Your task to perform on an android device: turn on the 24-hour format for clock Image 0: 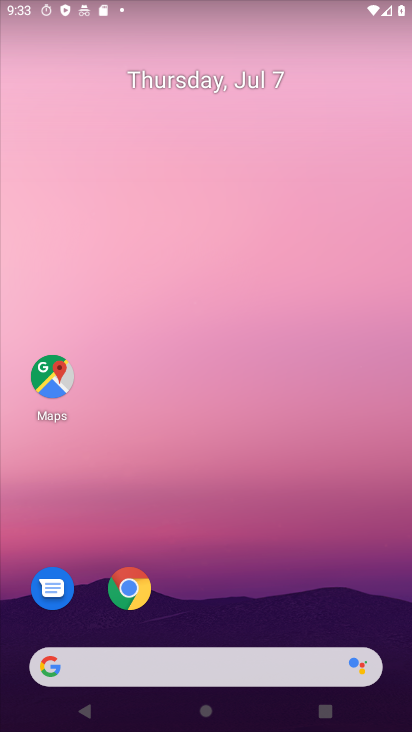
Step 0: drag from (264, 711) to (122, 30)
Your task to perform on an android device: turn on the 24-hour format for clock Image 1: 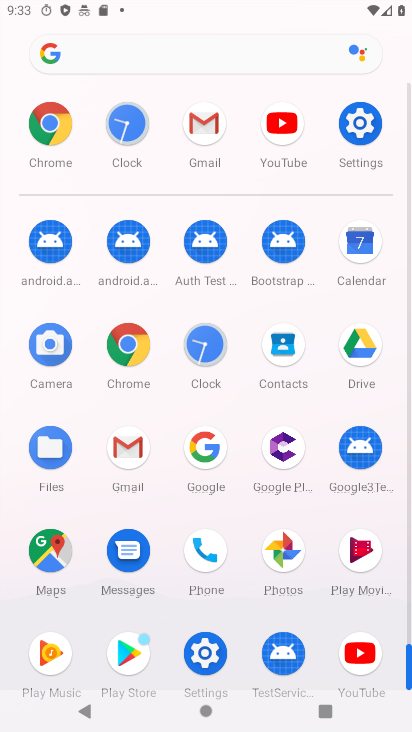
Step 1: click (194, 341)
Your task to perform on an android device: turn on the 24-hour format for clock Image 2: 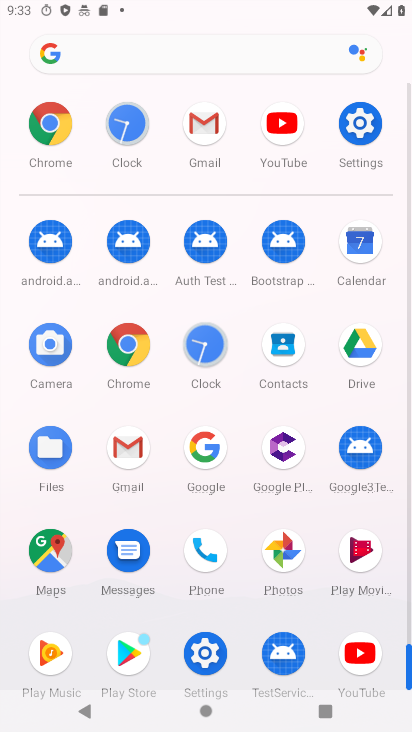
Step 2: click (194, 341)
Your task to perform on an android device: turn on the 24-hour format for clock Image 3: 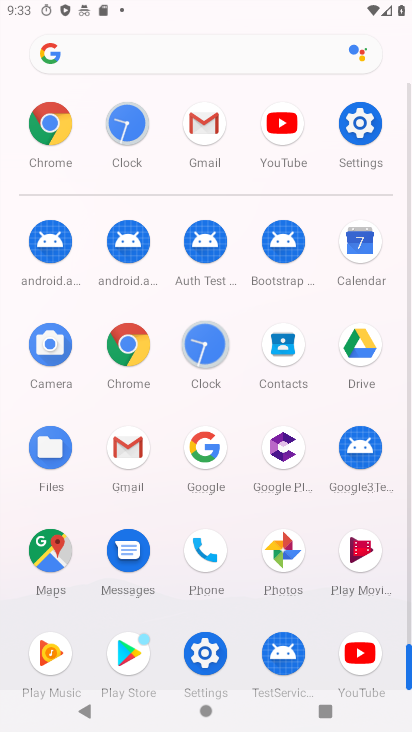
Step 3: click (194, 341)
Your task to perform on an android device: turn on the 24-hour format for clock Image 4: 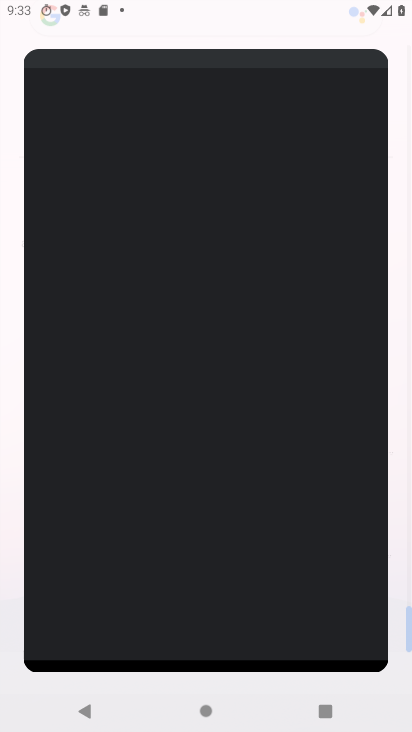
Step 4: click (194, 341)
Your task to perform on an android device: turn on the 24-hour format for clock Image 5: 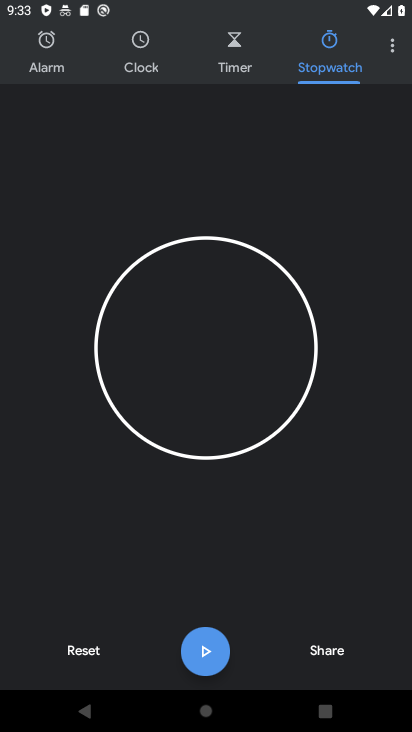
Step 5: click (138, 55)
Your task to perform on an android device: turn on the 24-hour format for clock Image 6: 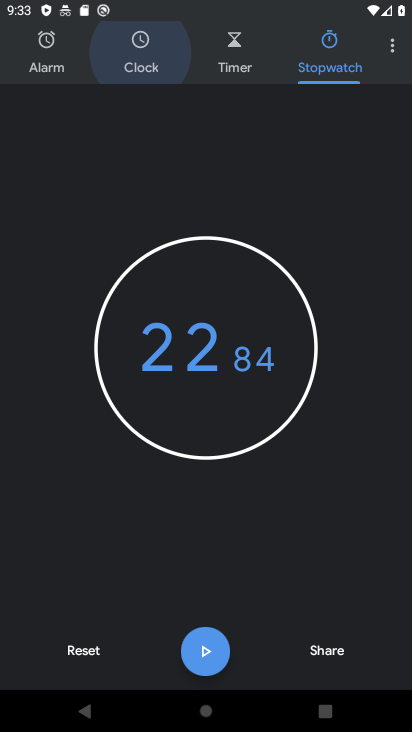
Step 6: click (139, 55)
Your task to perform on an android device: turn on the 24-hour format for clock Image 7: 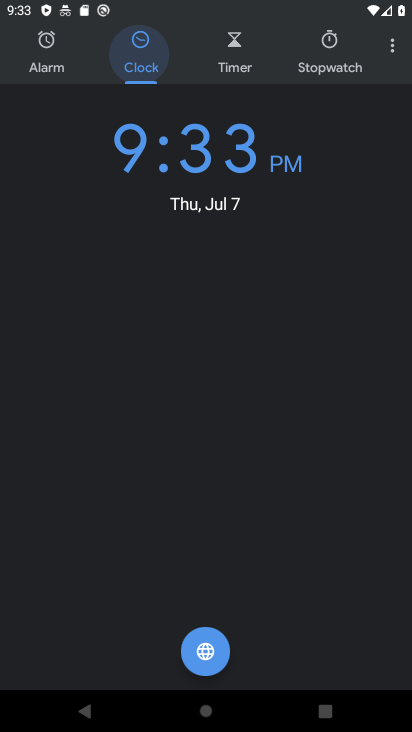
Step 7: click (140, 55)
Your task to perform on an android device: turn on the 24-hour format for clock Image 8: 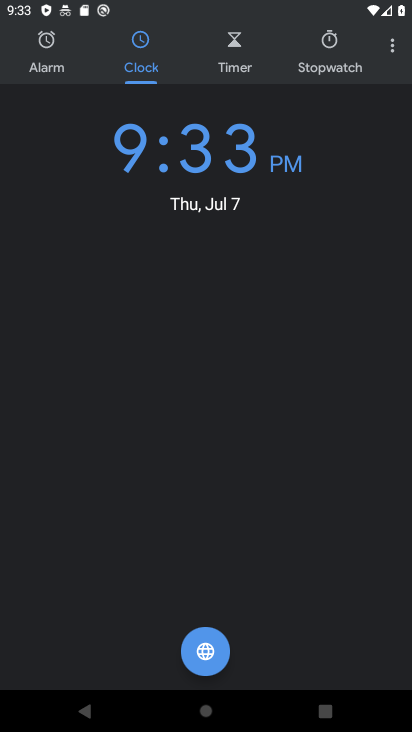
Step 8: click (391, 42)
Your task to perform on an android device: turn on the 24-hour format for clock Image 9: 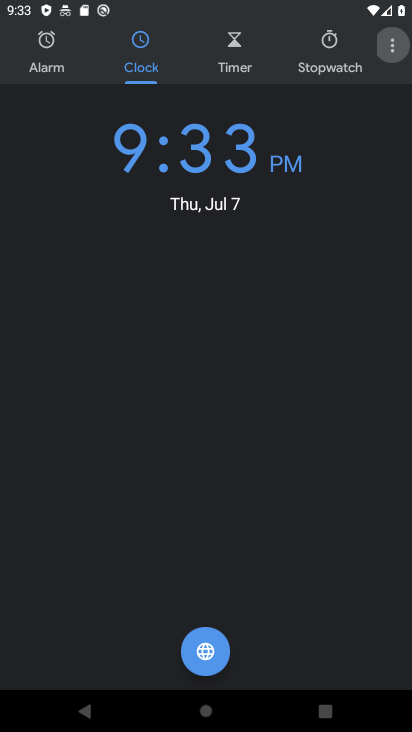
Step 9: click (391, 44)
Your task to perform on an android device: turn on the 24-hour format for clock Image 10: 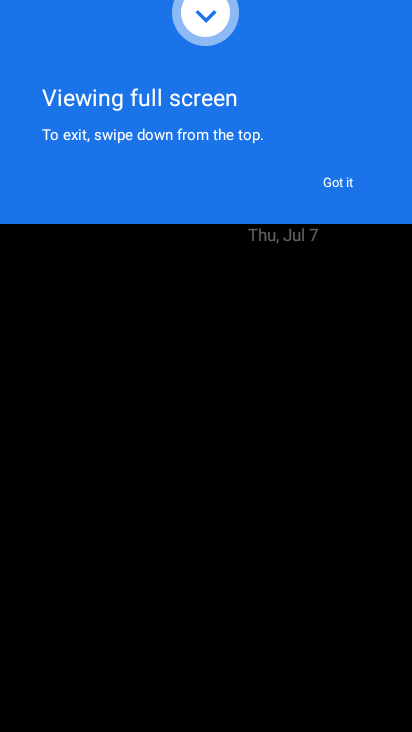
Step 10: click (338, 185)
Your task to perform on an android device: turn on the 24-hour format for clock Image 11: 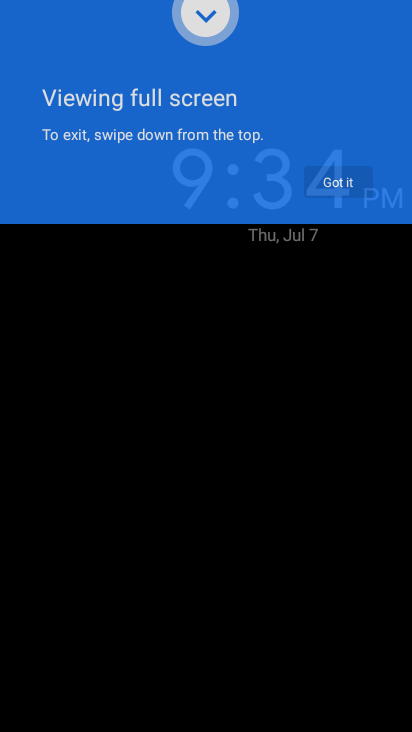
Step 11: click (338, 185)
Your task to perform on an android device: turn on the 24-hour format for clock Image 12: 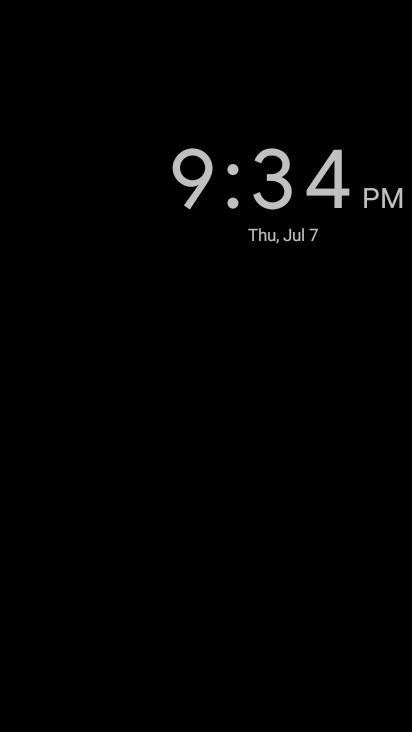
Step 12: click (339, 185)
Your task to perform on an android device: turn on the 24-hour format for clock Image 13: 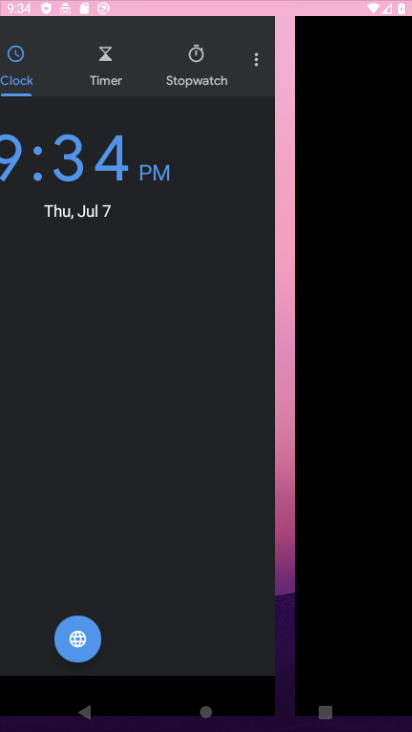
Step 13: click (339, 185)
Your task to perform on an android device: turn on the 24-hour format for clock Image 14: 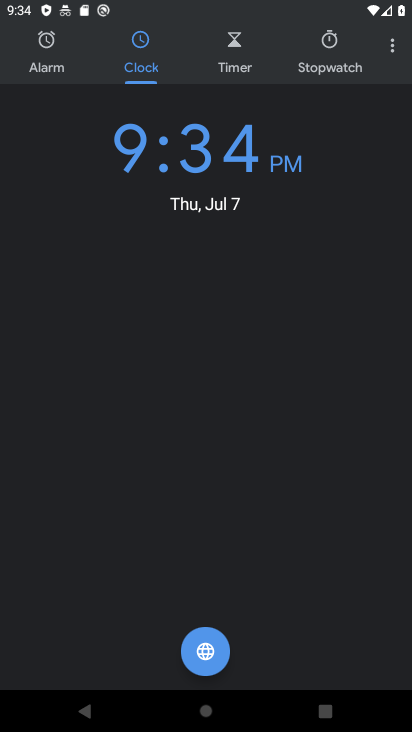
Step 14: click (388, 42)
Your task to perform on an android device: turn on the 24-hour format for clock Image 15: 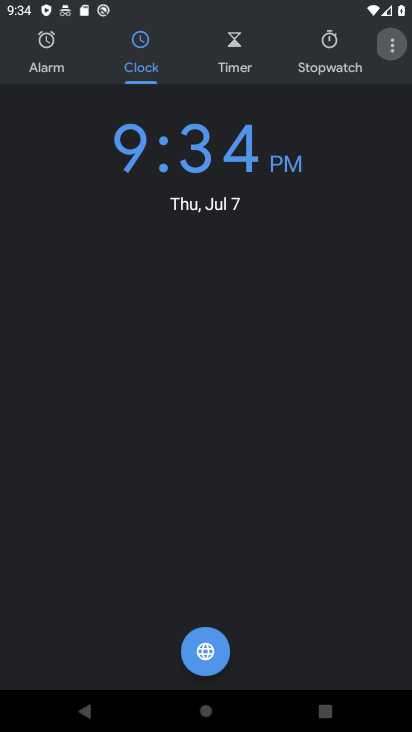
Step 15: click (389, 44)
Your task to perform on an android device: turn on the 24-hour format for clock Image 16: 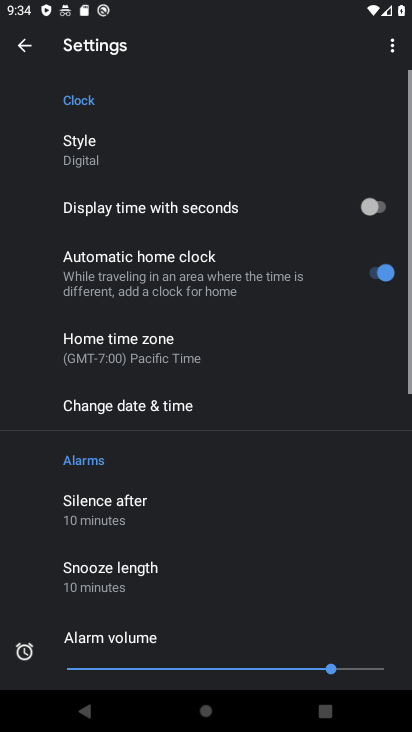
Step 16: drag from (190, 573) to (153, 172)
Your task to perform on an android device: turn on the 24-hour format for clock Image 17: 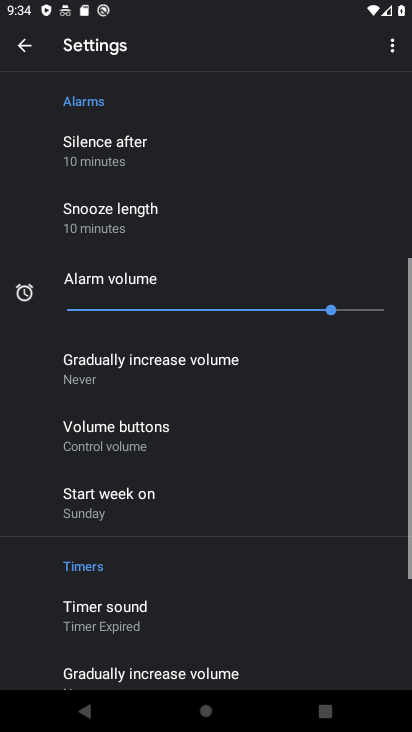
Step 17: drag from (171, 559) to (167, 402)
Your task to perform on an android device: turn on the 24-hour format for clock Image 18: 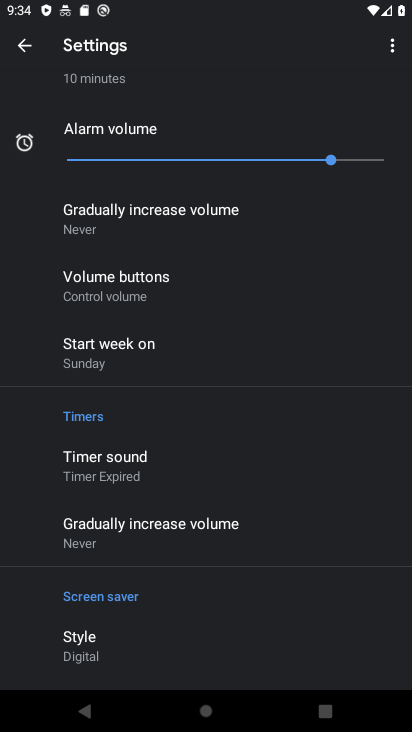
Step 18: drag from (233, 642) to (148, 237)
Your task to perform on an android device: turn on the 24-hour format for clock Image 19: 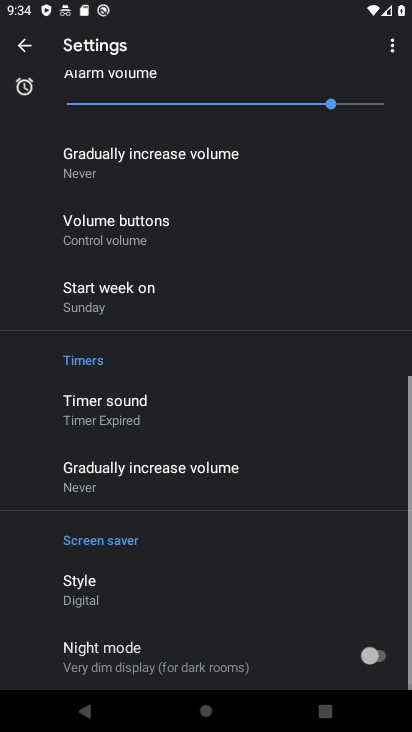
Step 19: drag from (178, 612) to (123, 255)
Your task to perform on an android device: turn on the 24-hour format for clock Image 20: 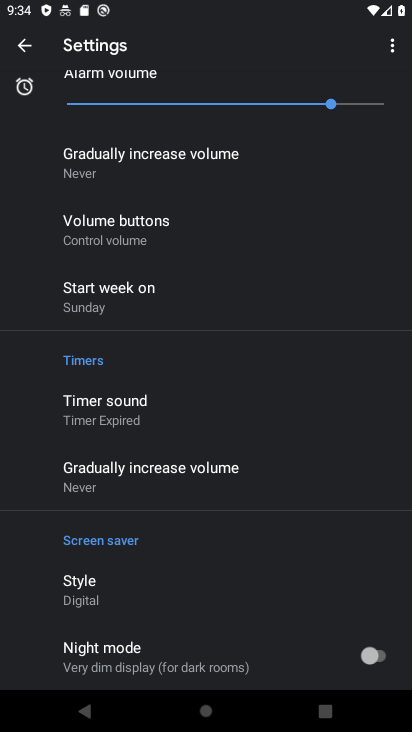
Step 20: drag from (119, 202) to (110, 534)
Your task to perform on an android device: turn on the 24-hour format for clock Image 21: 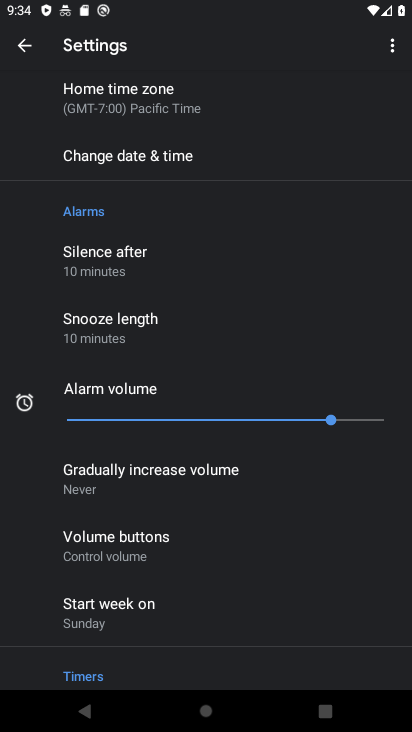
Step 21: drag from (185, 628) to (202, 351)
Your task to perform on an android device: turn on the 24-hour format for clock Image 22: 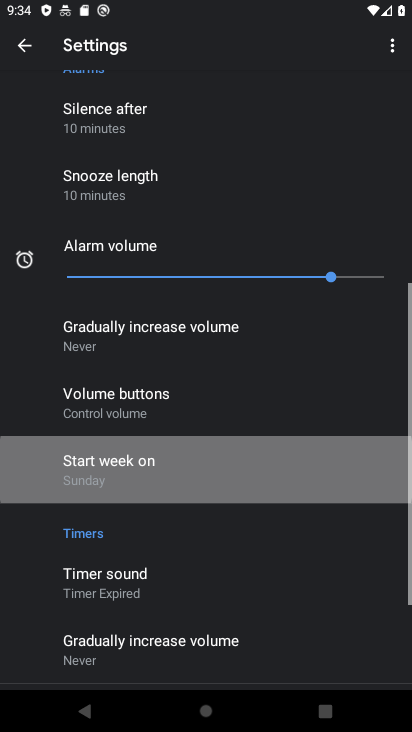
Step 22: drag from (201, 603) to (155, 187)
Your task to perform on an android device: turn on the 24-hour format for clock Image 23: 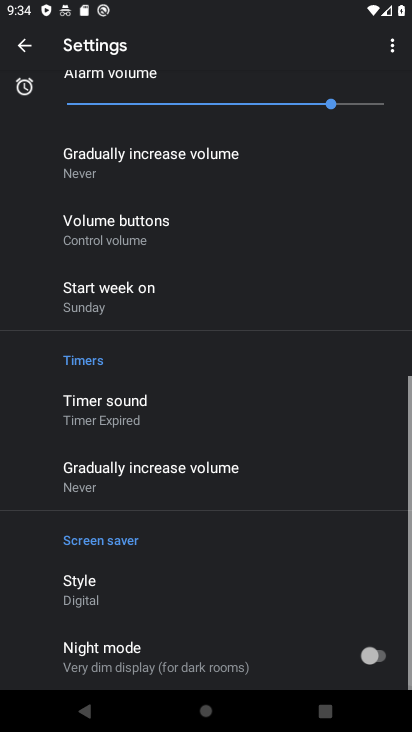
Step 23: drag from (269, 549) to (269, 187)
Your task to perform on an android device: turn on the 24-hour format for clock Image 24: 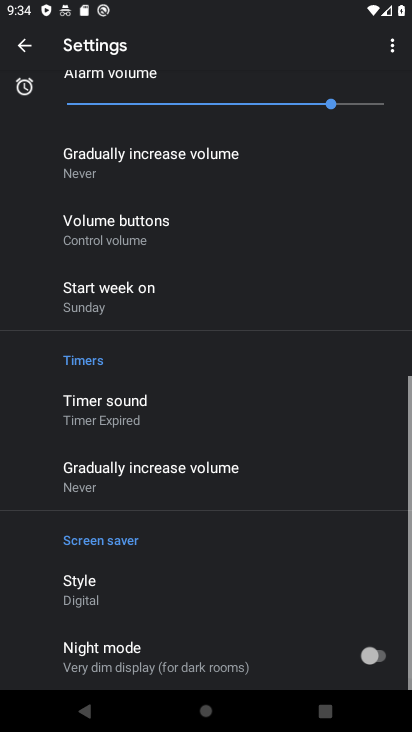
Step 24: drag from (213, 586) to (137, 337)
Your task to perform on an android device: turn on the 24-hour format for clock Image 25: 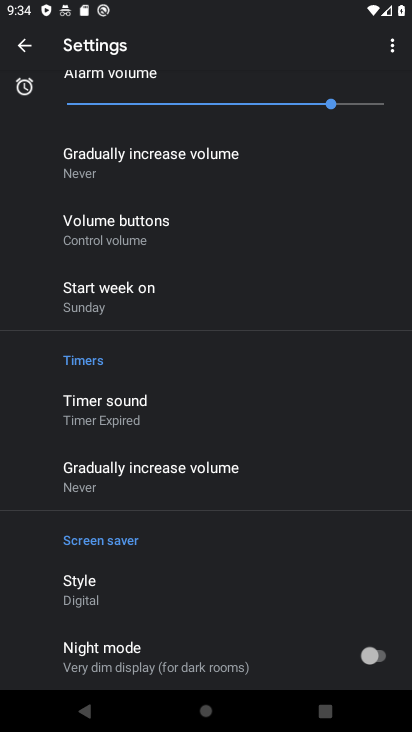
Step 25: click (34, 177)
Your task to perform on an android device: turn on the 24-hour format for clock Image 26: 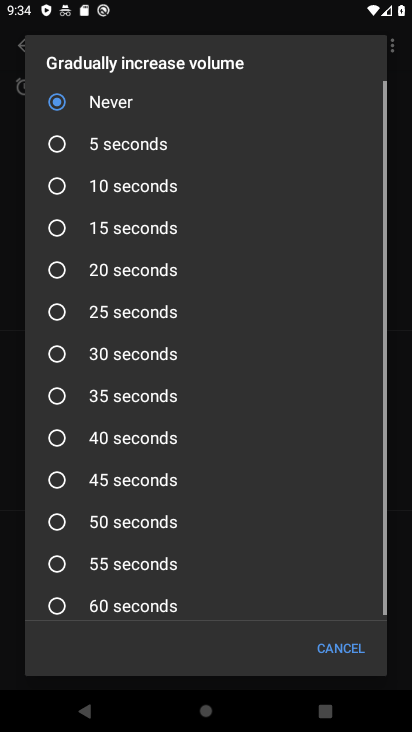
Step 26: drag from (169, 259) to (209, 577)
Your task to perform on an android device: turn on the 24-hour format for clock Image 27: 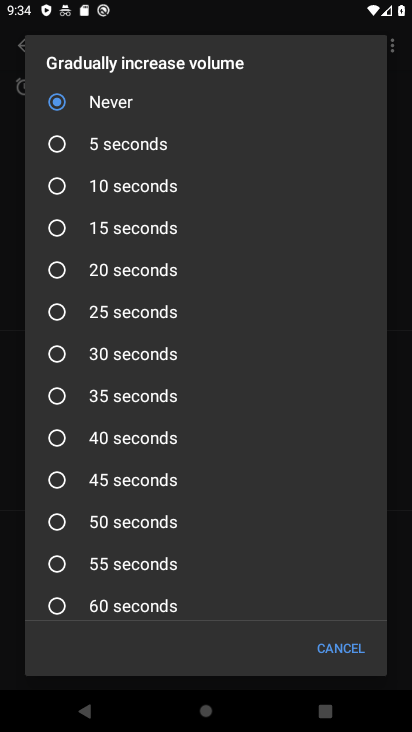
Step 27: click (331, 644)
Your task to perform on an android device: turn on the 24-hour format for clock Image 28: 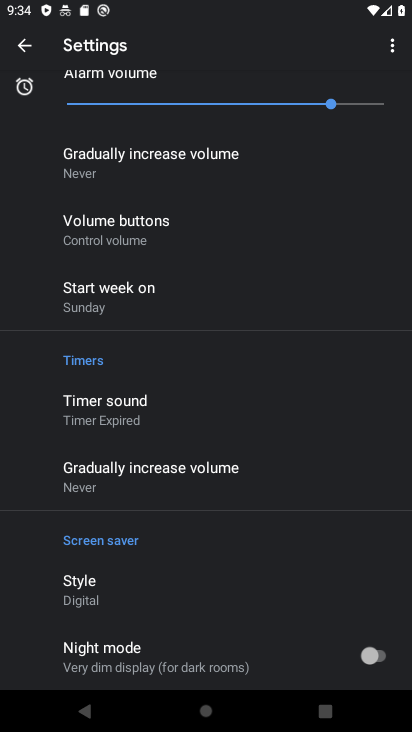
Step 28: drag from (150, 332) to (161, 618)
Your task to perform on an android device: turn on the 24-hour format for clock Image 29: 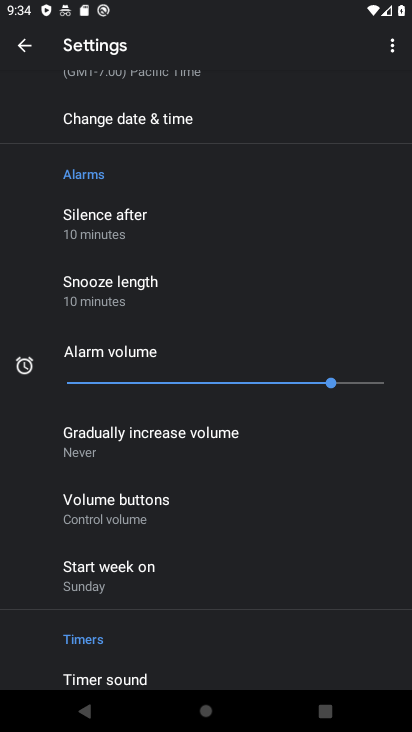
Step 29: click (130, 109)
Your task to perform on an android device: turn on the 24-hour format for clock Image 30: 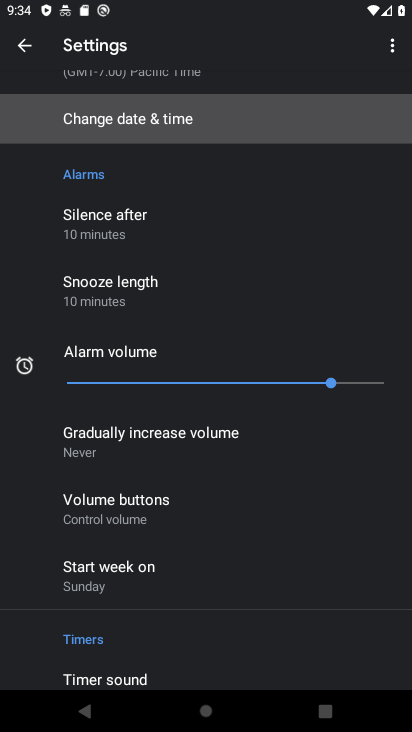
Step 30: click (130, 109)
Your task to perform on an android device: turn on the 24-hour format for clock Image 31: 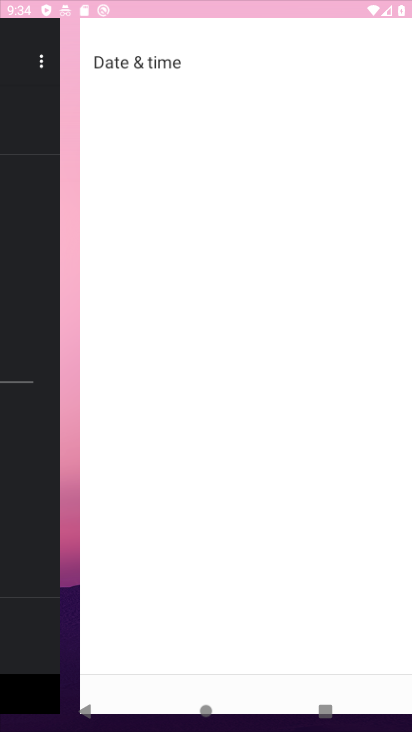
Step 31: click (130, 109)
Your task to perform on an android device: turn on the 24-hour format for clock Image 32: 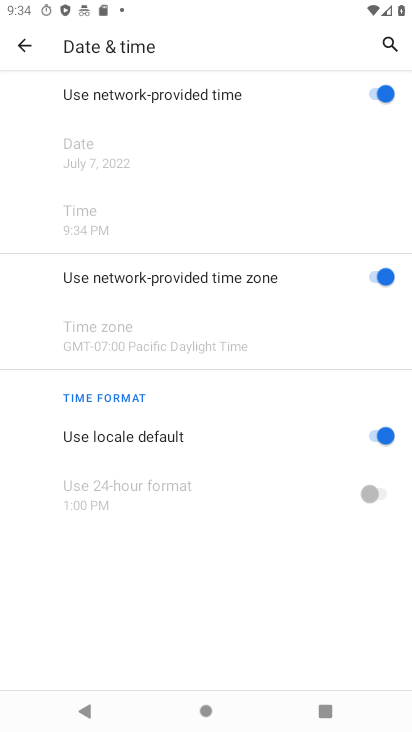
Step 32: click (381, 431)
Your task to perform on an android device: turn on the 24-hour format for clock Image 33: 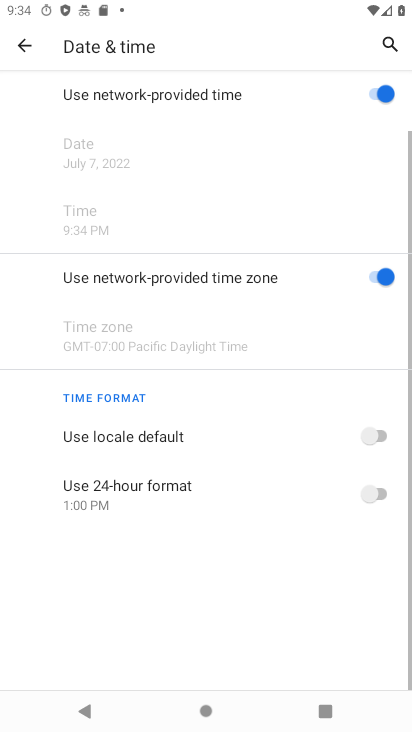
Step 33: click (371, 496)
Your task to perform on an android device: turn on the 24-hour format for clock Image 34: 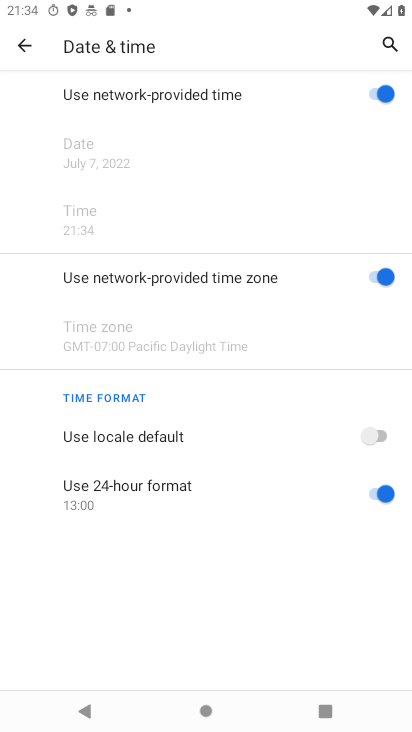
Step 34: task complete